Your task to perform on an android device: see creations saved in the google photos Image 0: 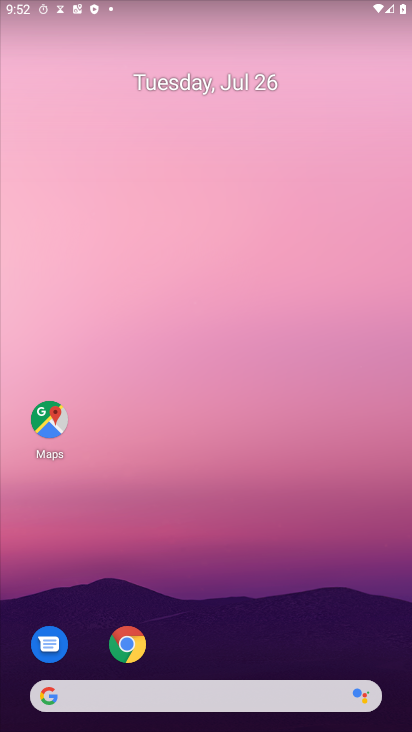
Step 0: drag from (201, 636) to (189, 50)
Your task to perform on an android device: see creations saved in the google photos Image 1: 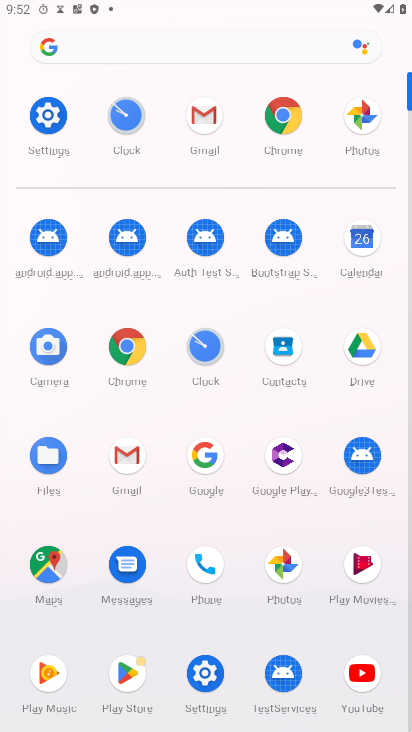
Step 1: click (293, 577)
Your task to perform on an android device: see creations saved in the google photos Image 2: 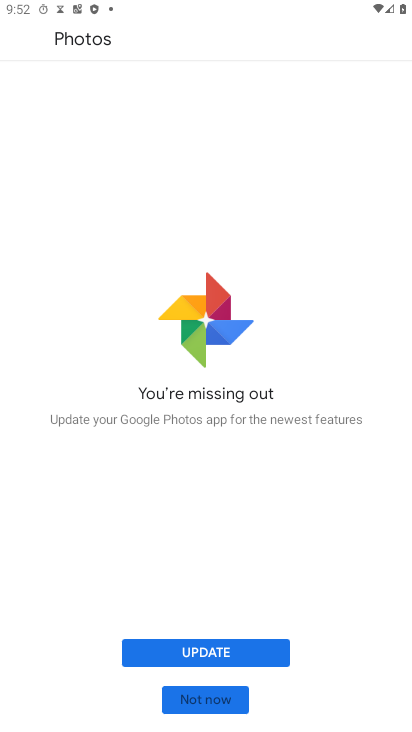
Step 2: click (211, 704)
Your task to perform on an android device: see creations saved in the google photos Image 3: 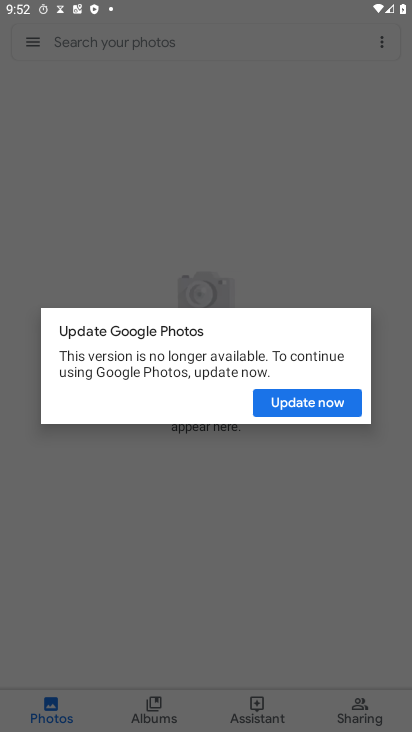
Step 3: click (342, 409)
Your task to perform on an android device: see creations saved in the google photos Image 4: 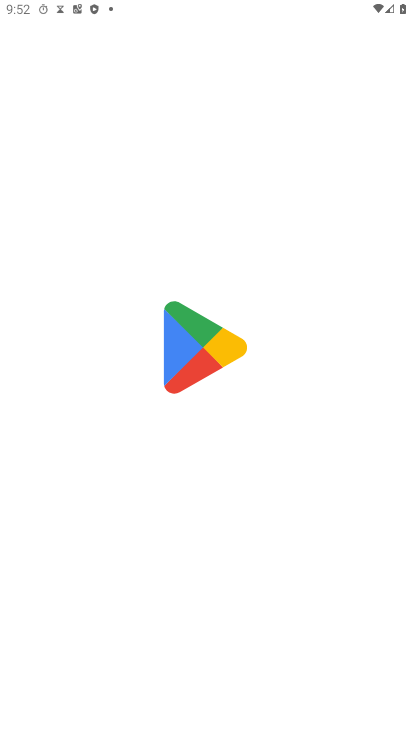
Step 4: click (145, 47)
Your task to perform on an android device: see creations saved in the google photos Image 5: 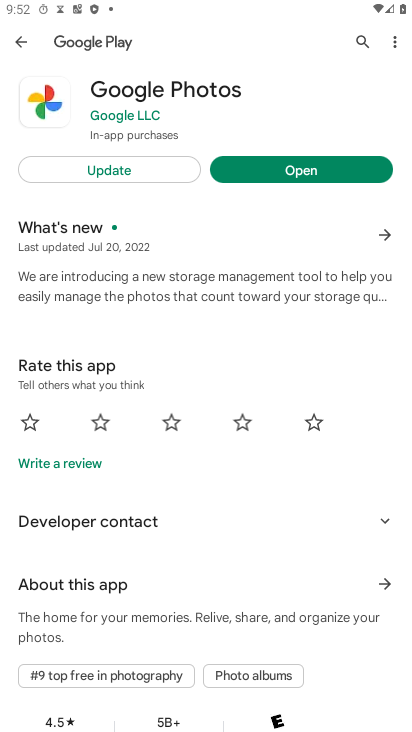
Step 5: click (313, 166)
Your task to perform on an android device: see creations saved in the google photos Image 6: 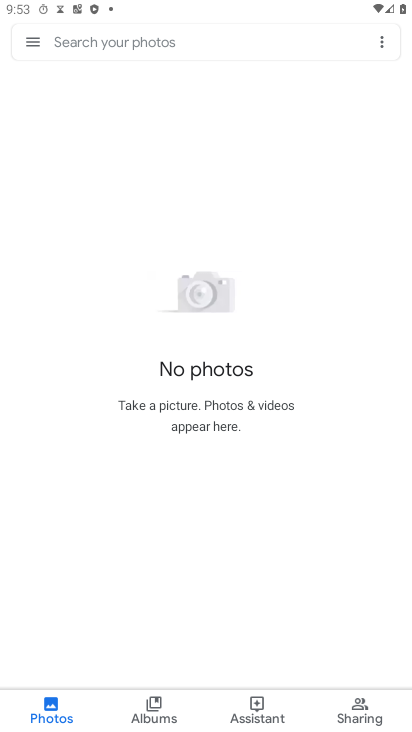
Step 6: click (145, 41)
Your task to perform on an android device: see creations saved in the google photos Image 7: 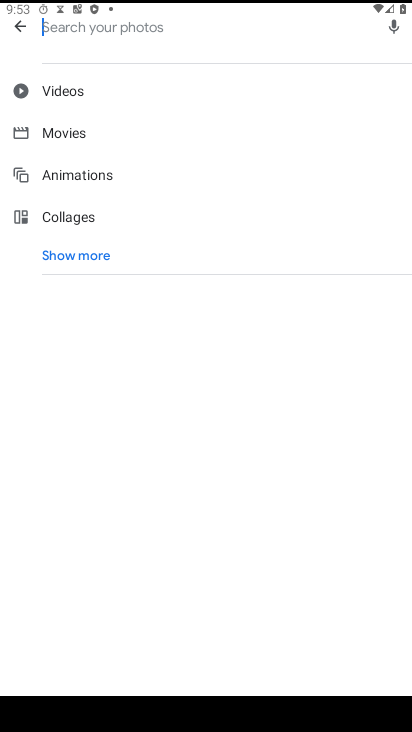
Step 7: type "creations"
Your task to perform on an android device: see creations saved in the google photos Image 8: 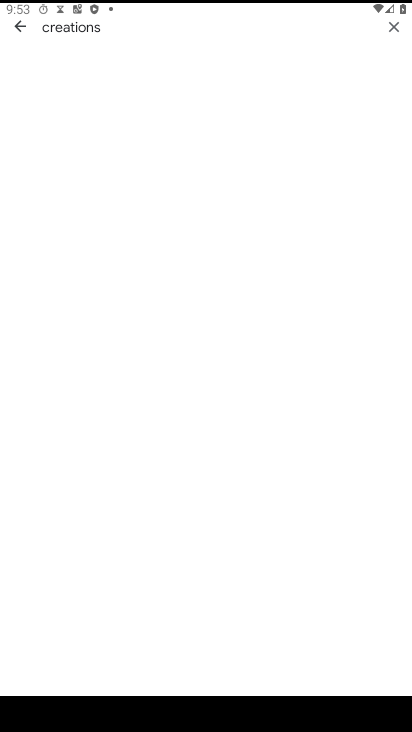
Step 8: click (135, 99)
Your task to perform on an android device: see creations saved in the google photos Image 9: 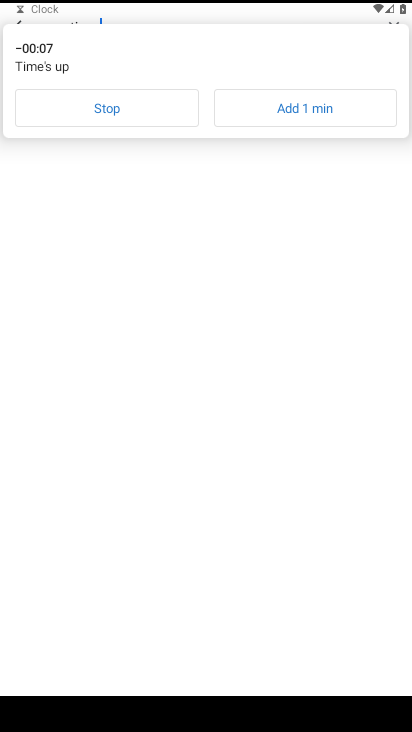
Step 9: click (85, 110)
Your task to perform on an android device: see creations saved in the google photos Image 10: 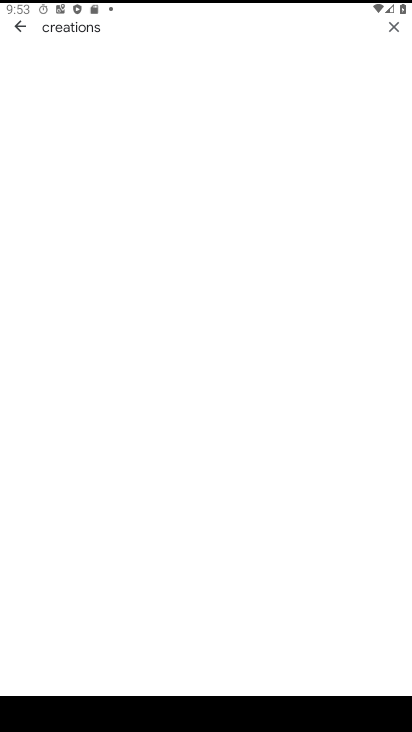
Step 10: task complete